Your task to perform on an android device: add a contact Image 0: 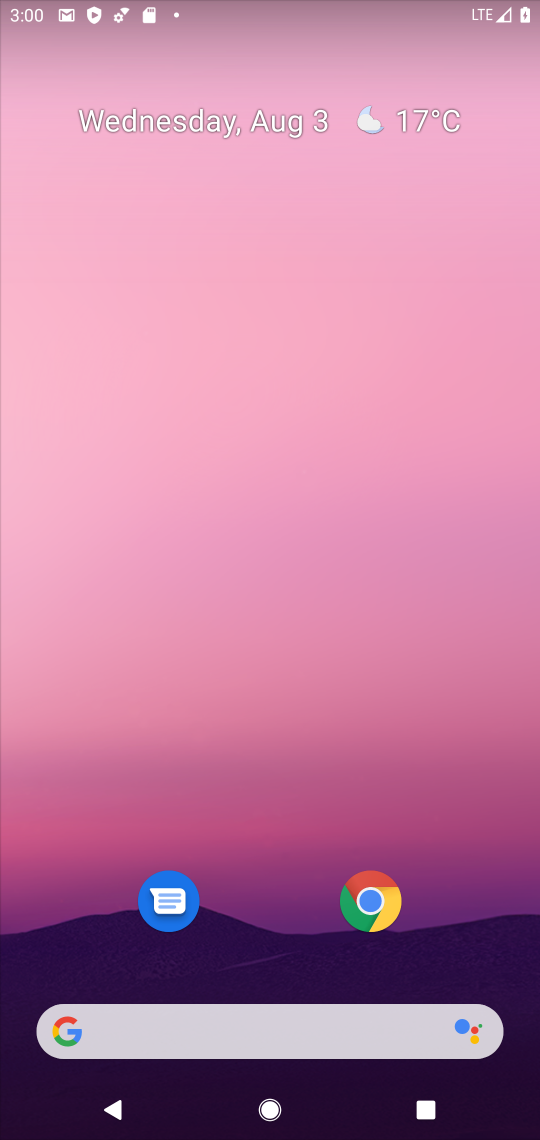
Step 0: drag from (306, 897) to (330, 293)
Your task to perform on an android device: add a contact Image 1: 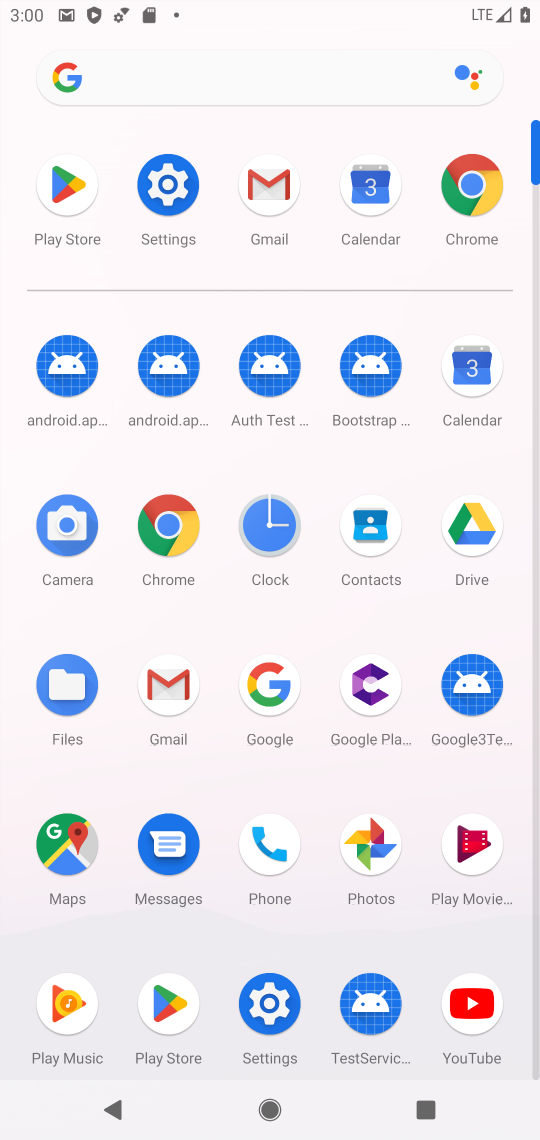
Step 1: click (278, 826)
Your task to perform on an android device: add a contact Image 2: 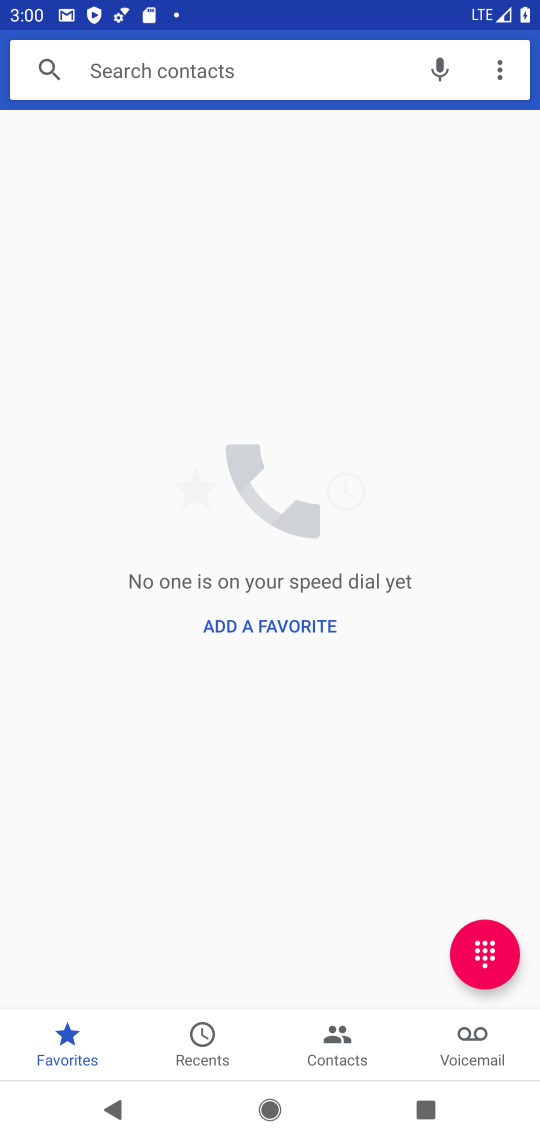
Step 2: click (244, 621)
Your task to perform on an android device: add a contact Image 3: 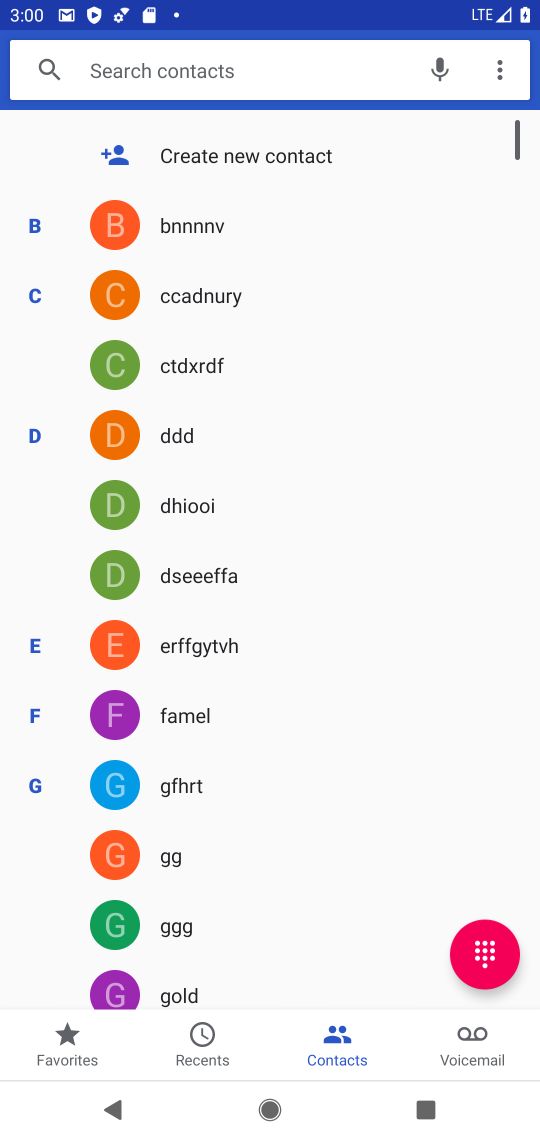
Step 3: click (229, 143)
Your task to perform on an android device: add a contact Image 4: 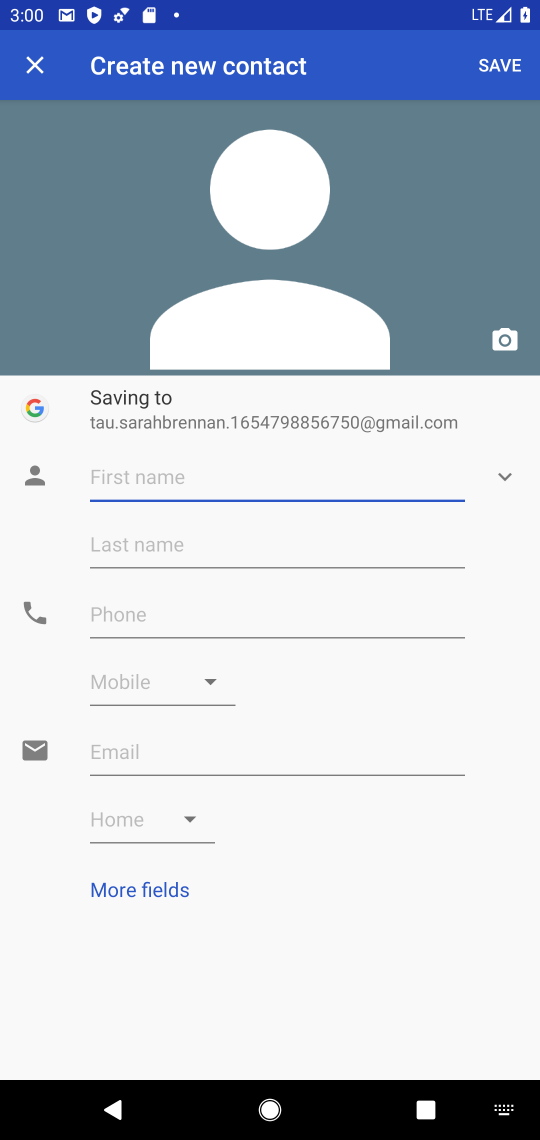
Step 4: click (238, 466)
Your task to perform on an android device: add a contact Image 5: 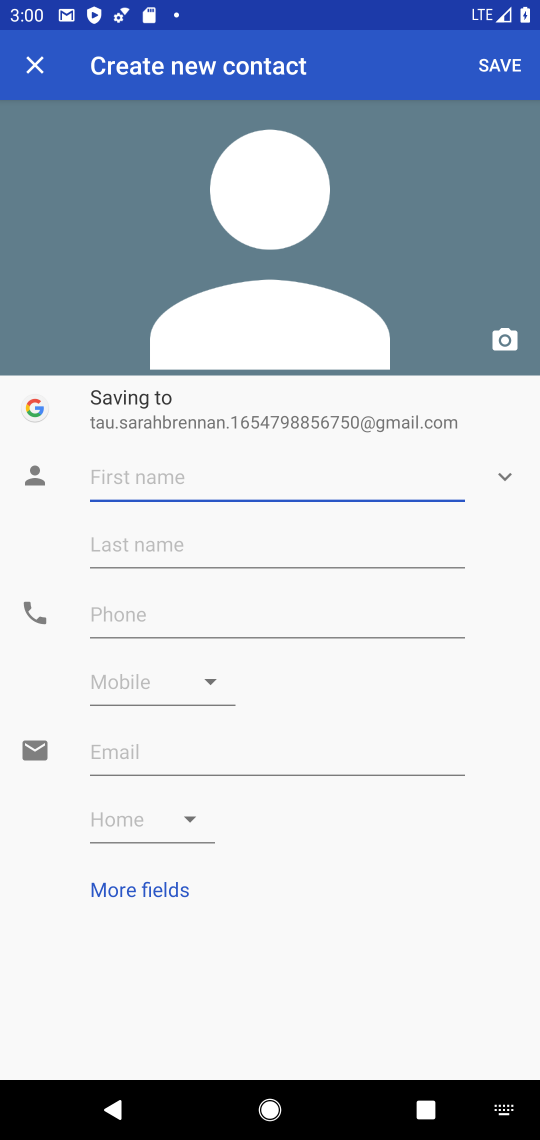
Step 5: type "hvhvhvhvhvh "
Your task to perform on an android device: add a contact Image 6: 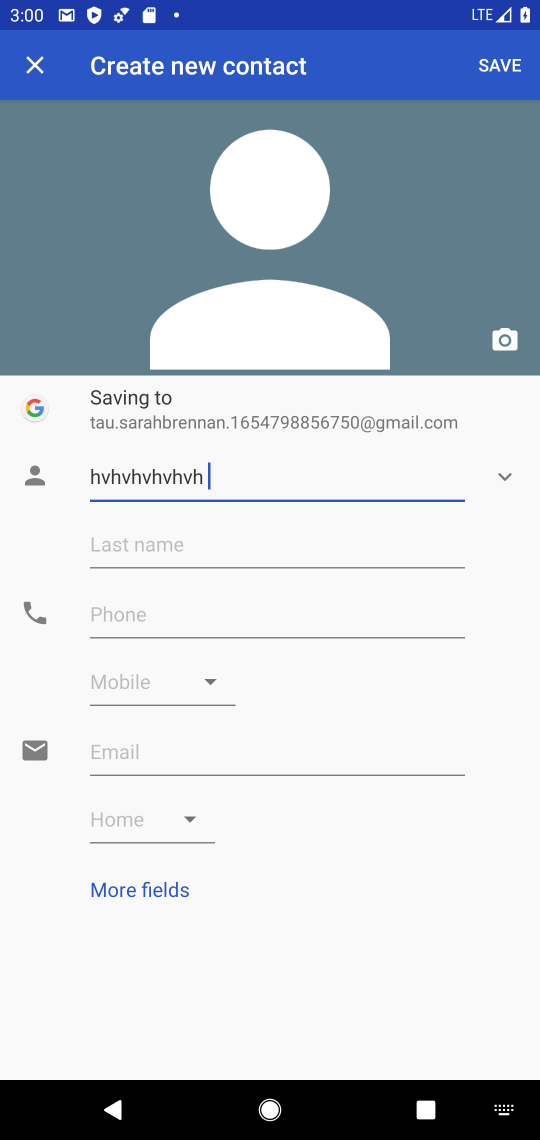
Step 6: click (273, 604)
Your task to perform on an android device: add a contact Image 7: 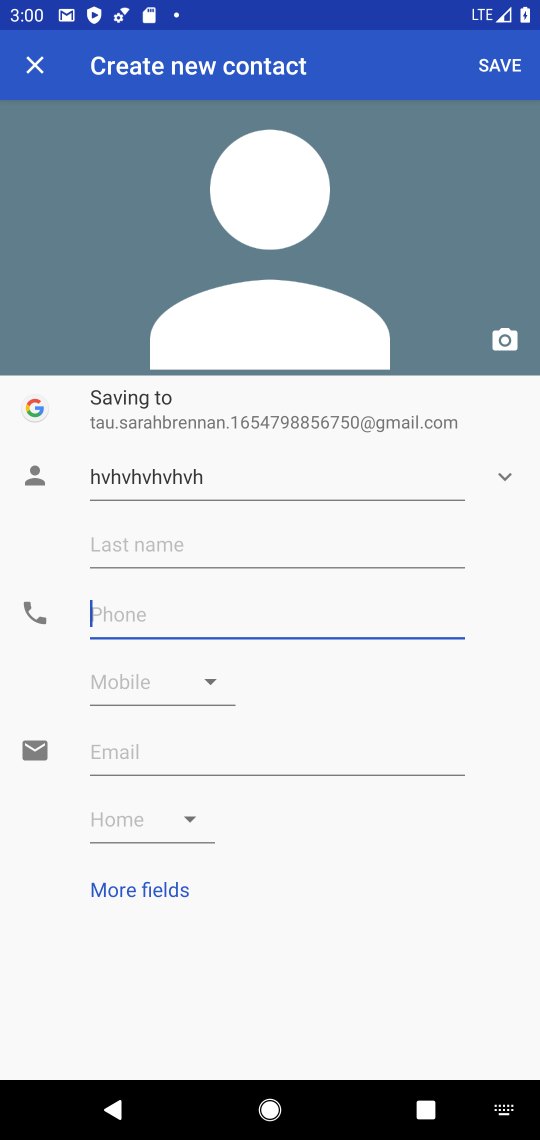
Step 7: type "098765432 "
Your task to perform on an android device: add a contact Image 8: 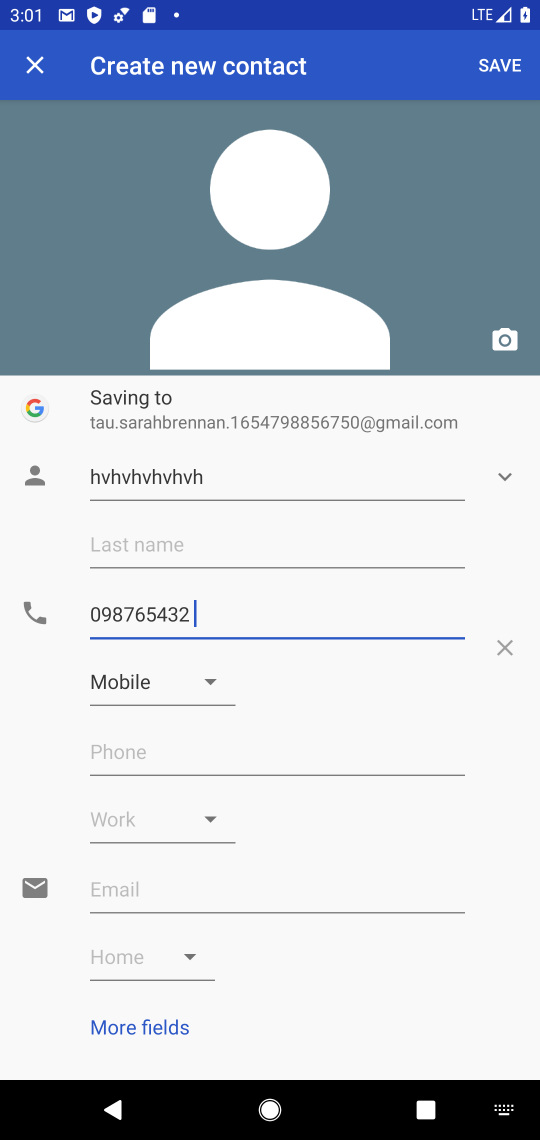
Step 8: click (489, 76)
Your task to perform on an android device: add a contact Image 9: 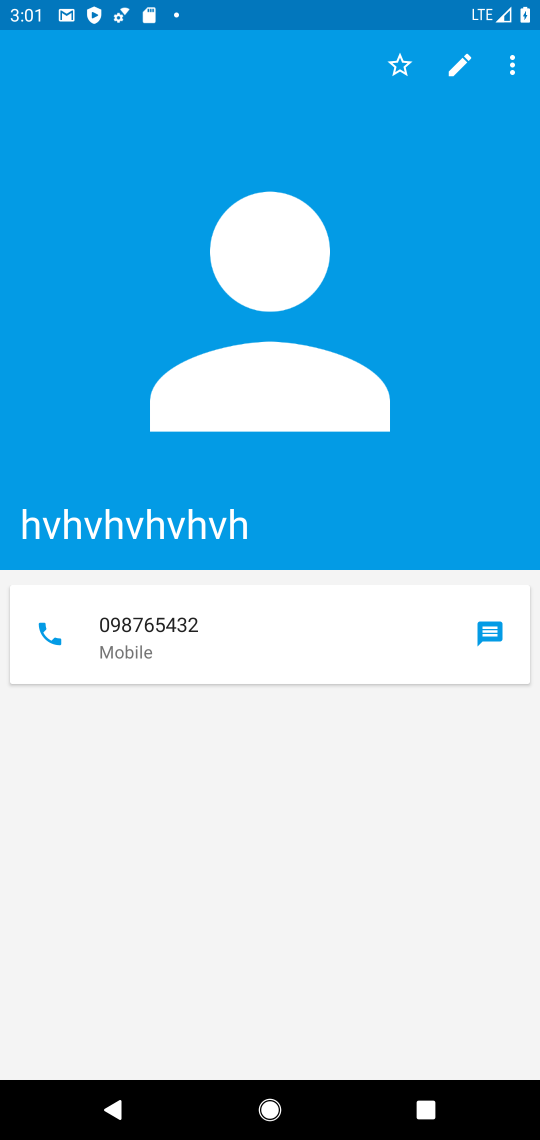
Step 9: task complete